Your task to perform on an android device: open app "Indeed Job Search" (install if not already installed) and go to login screen Image 0: 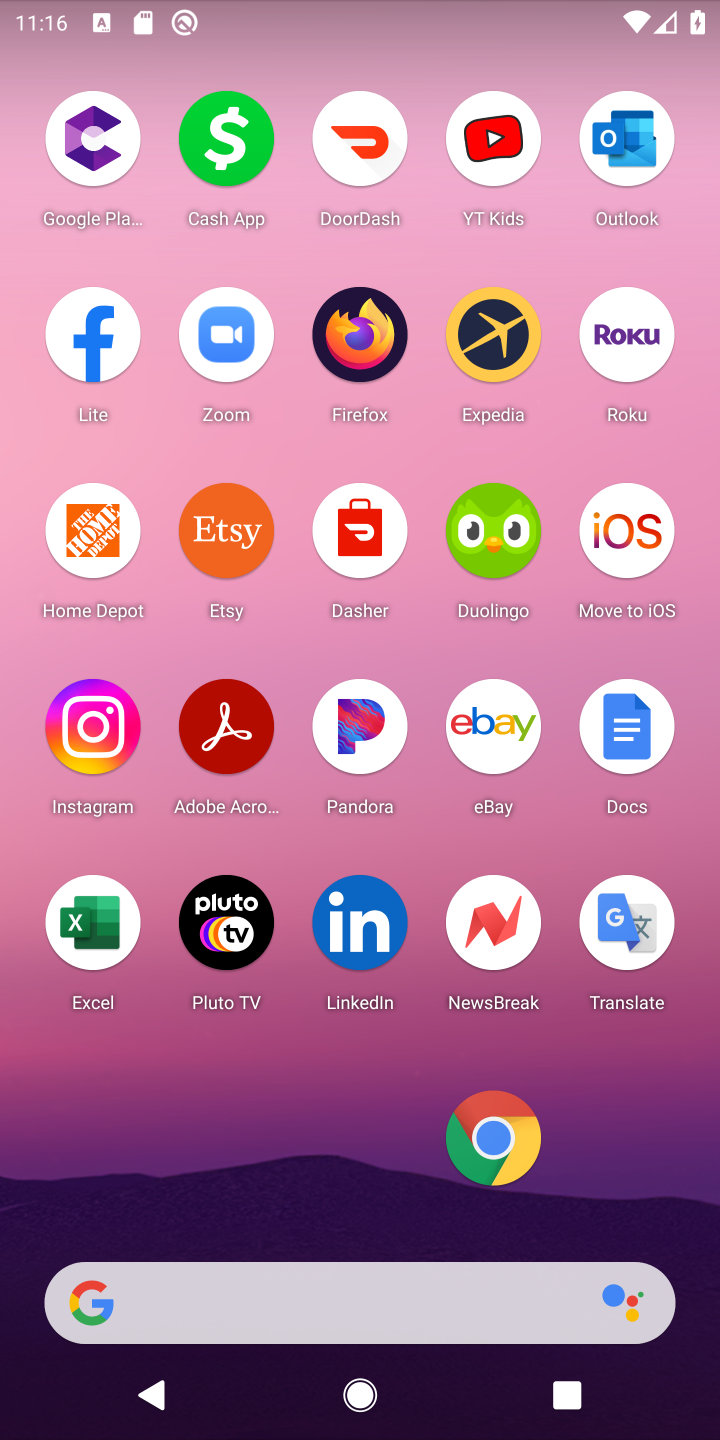
Step 0: press home button
Your task to perform on an android device: open app "Indeed Job Search" (install if not already installed) and go to login screen Image 1: 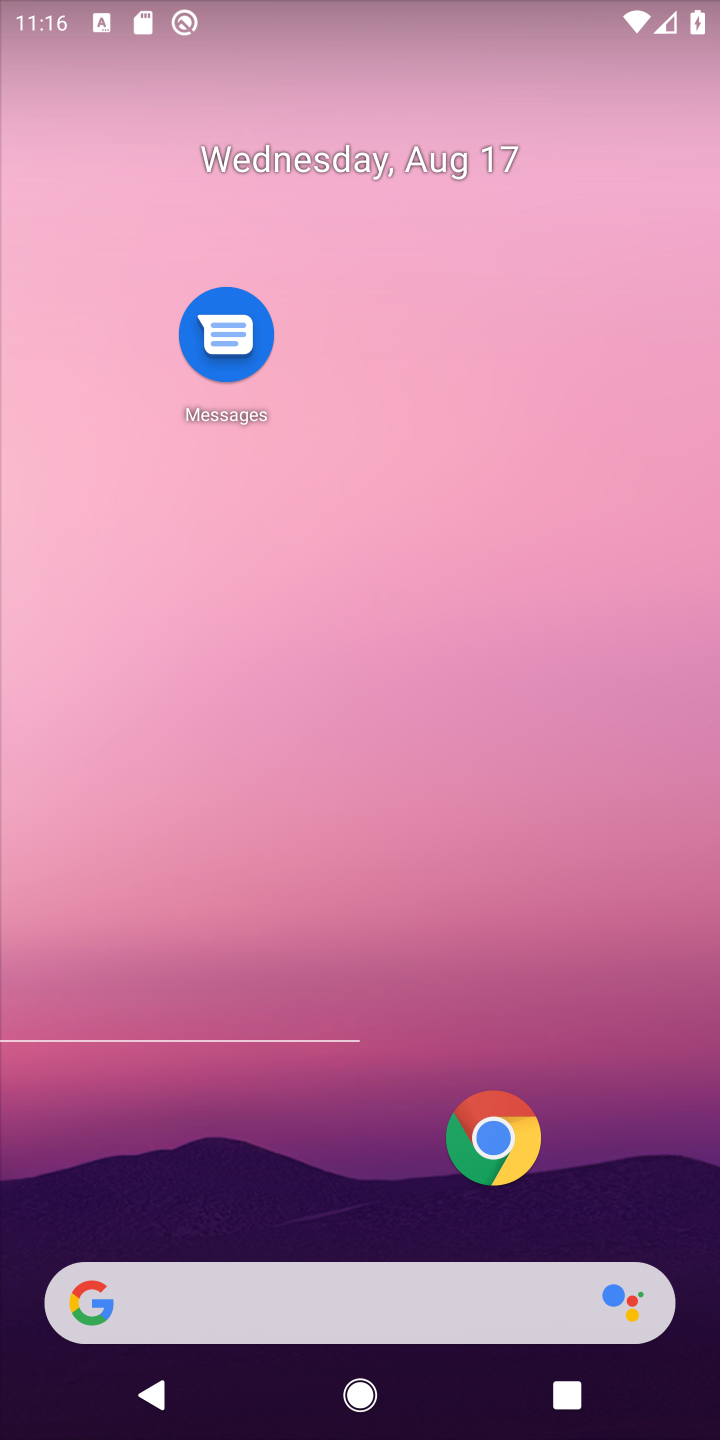
Step 1: click (499, 141)
Your task to perform on an android device: open app "Indeed Job Search" (install if not already installed) and go to login screen Image 2: 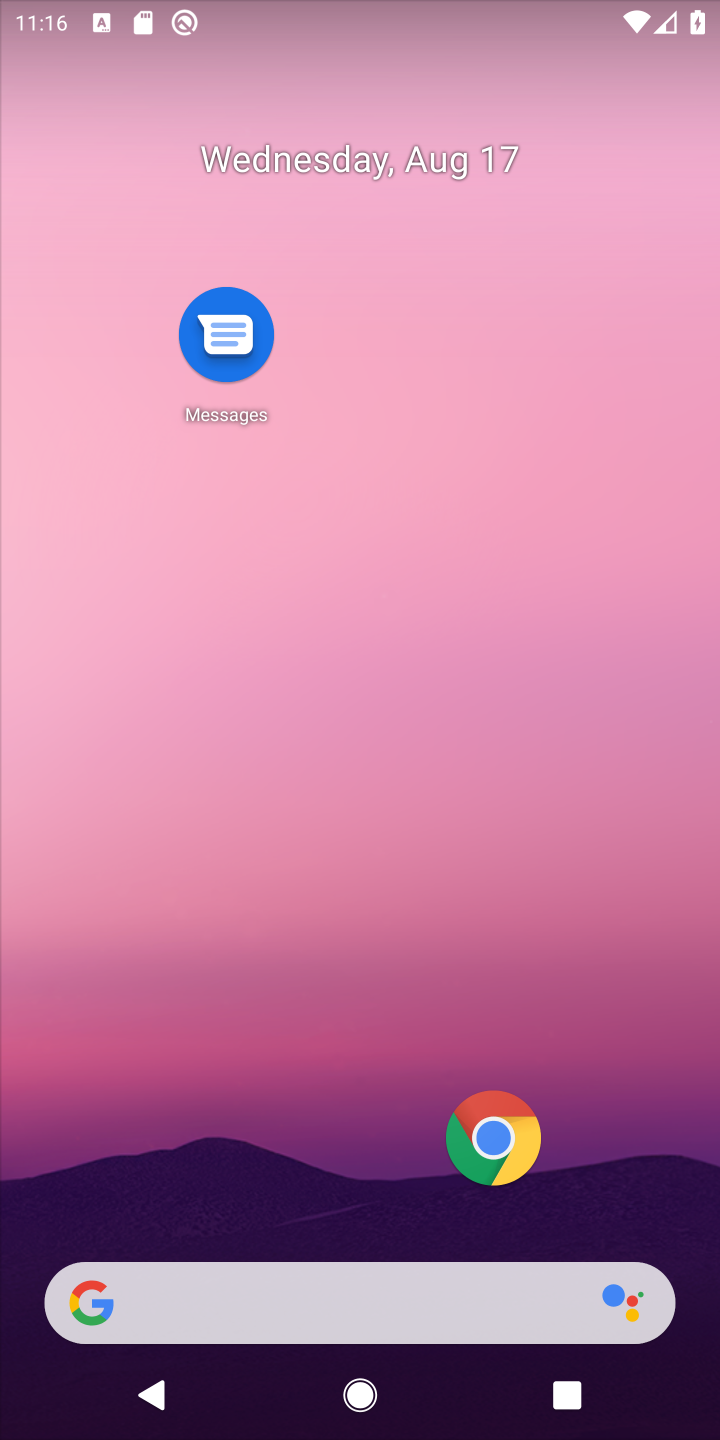
Step 2: drag from (384, 845) to (422, 571)
Your task to perform on an android device: open app "Indeed Job Search" (install if not already installed) and go to login screen Image 3: 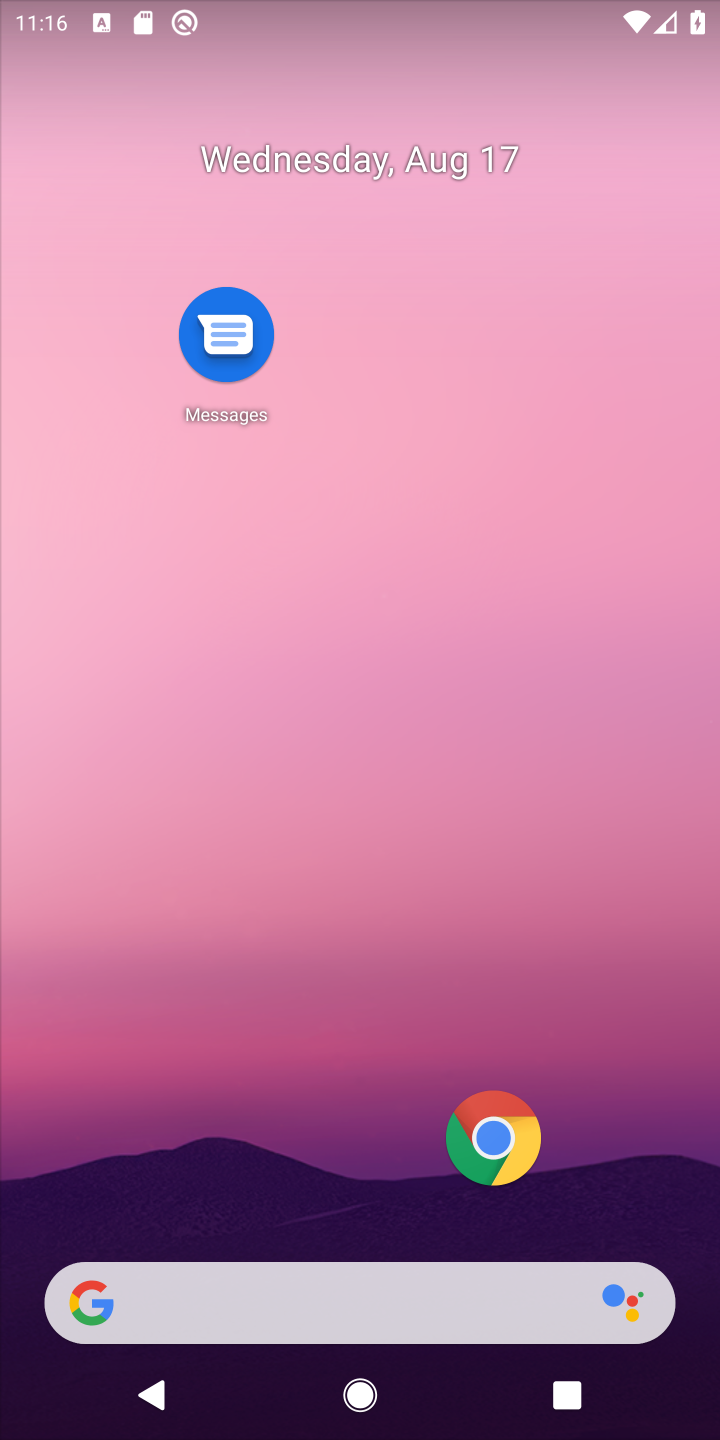
Step 3: drag from (254, 1088) to (308, 503)
Your task to perform on an android device: open app "Indeed Job Search" (install if not already installed) and go to login screen Image 4: 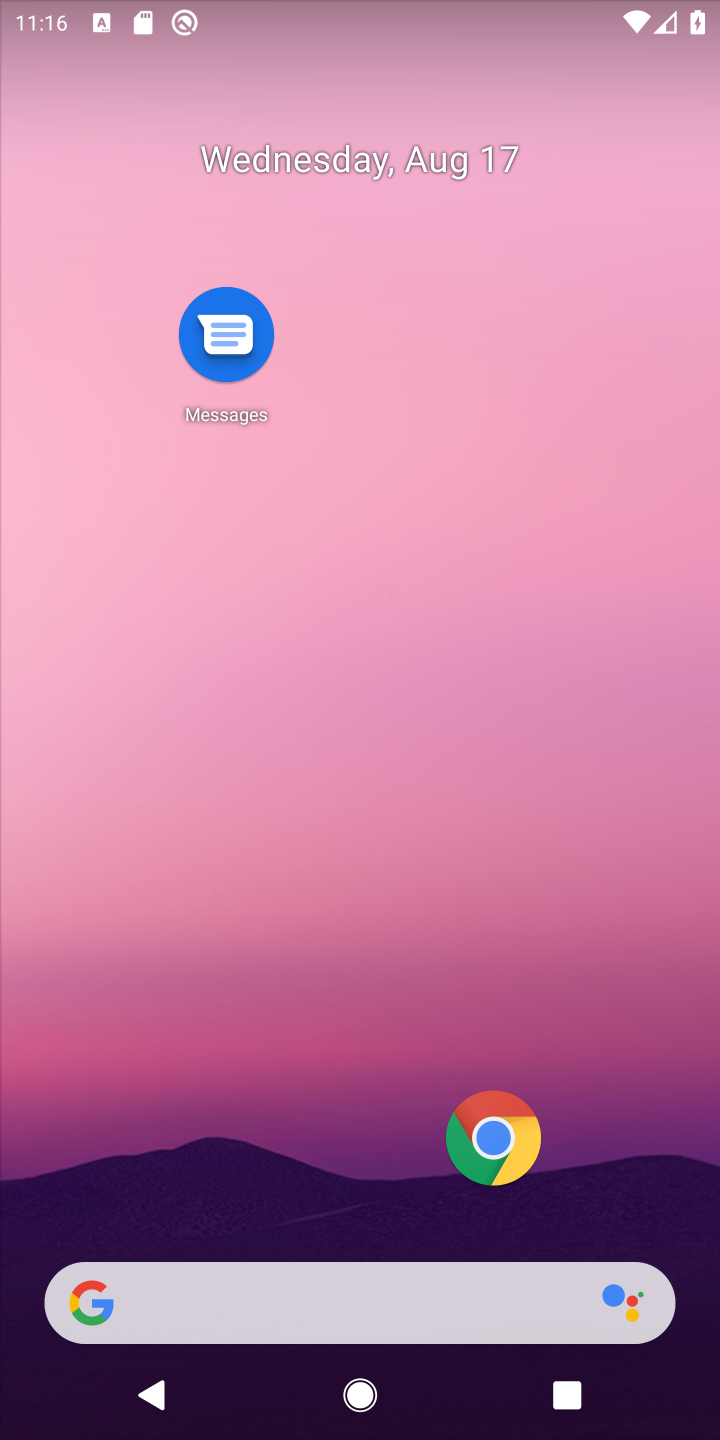
Step 4: drag from (274, 1136) to (283, 276)
Your task to perform on an android device: open app "Indeed Job Search" (install if not already installed) and go to login screen Image 5: 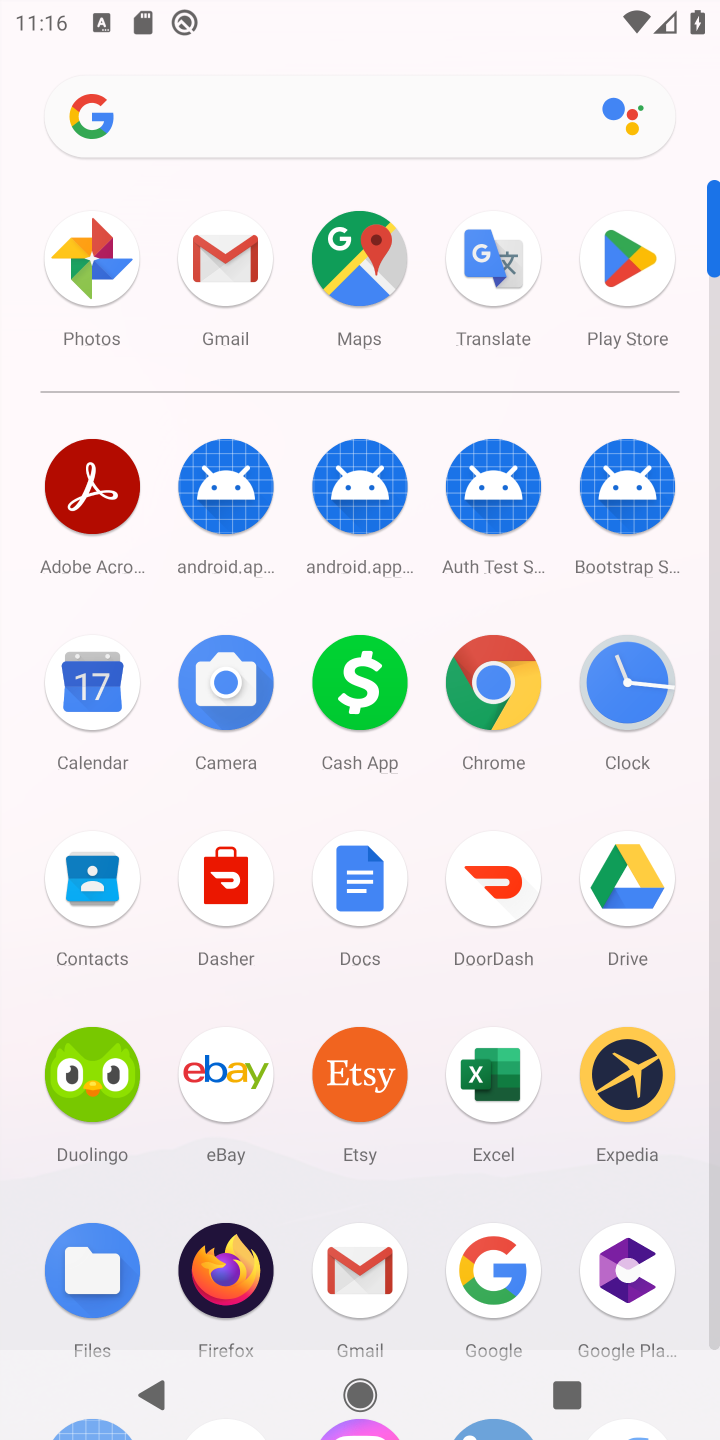
Step 5: click (611, 252)
Your task to perform on an android device: open app "Indeed Job Search" (install if not already installed) and go to login screen Image 6: 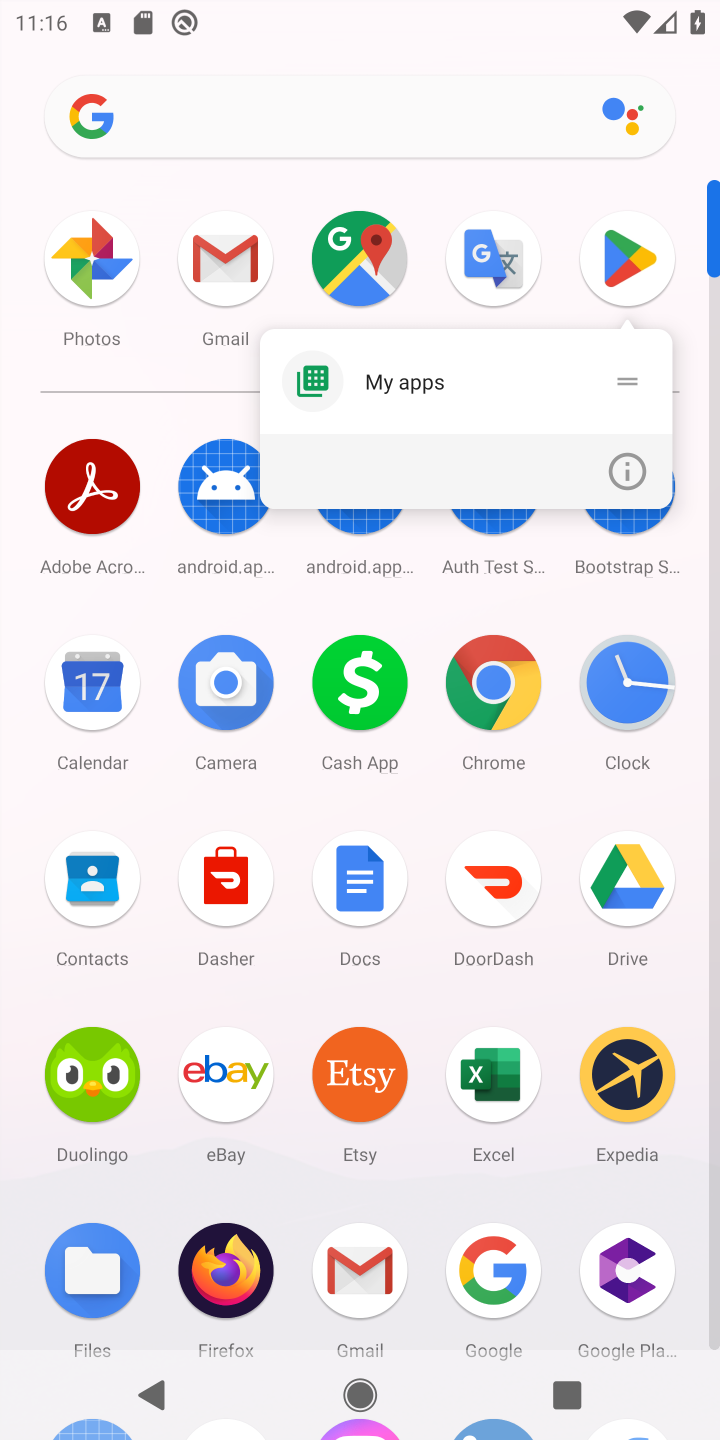
Step 6: click (611, 252)
Your task to perform on an android device: open app "Indeed Job Search" (install if not already installed) and go to login screen Image 7: 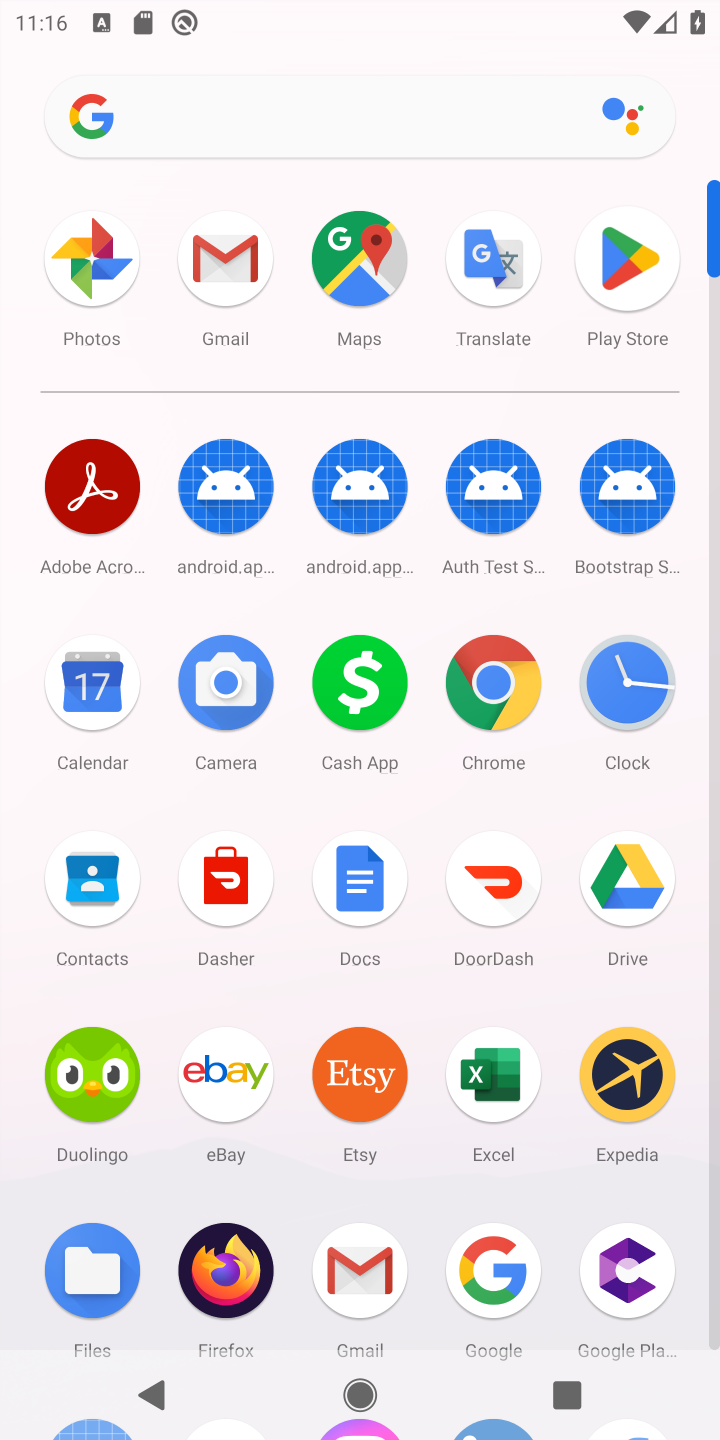
Step 7: click (630, 276)
Your task to perform on an android device: open app "Indeed Job Search" (install if not already installed) and go to login screen Image 8: 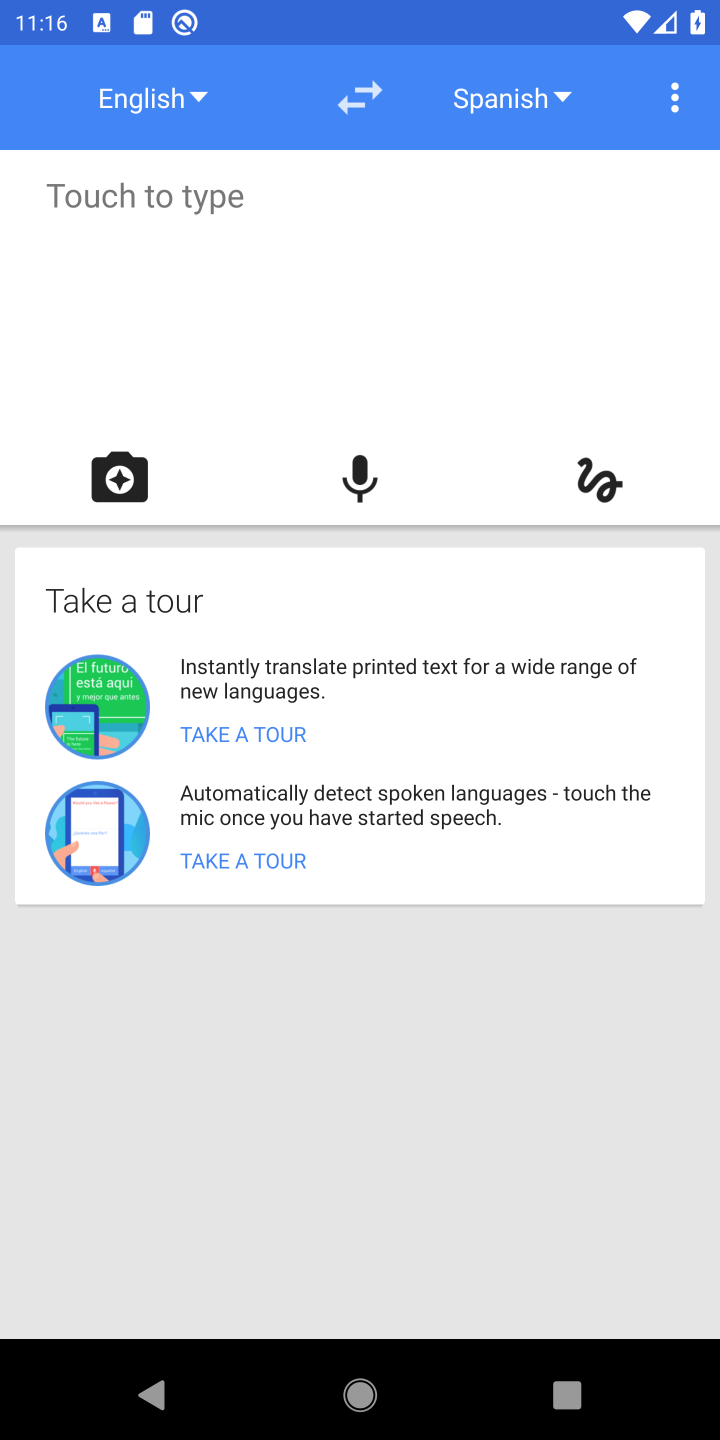
Step 8: press back button
Your task to perform on an android device: open app "Indeed Job Search" (install if not already installed) and go to login screen Image 9: 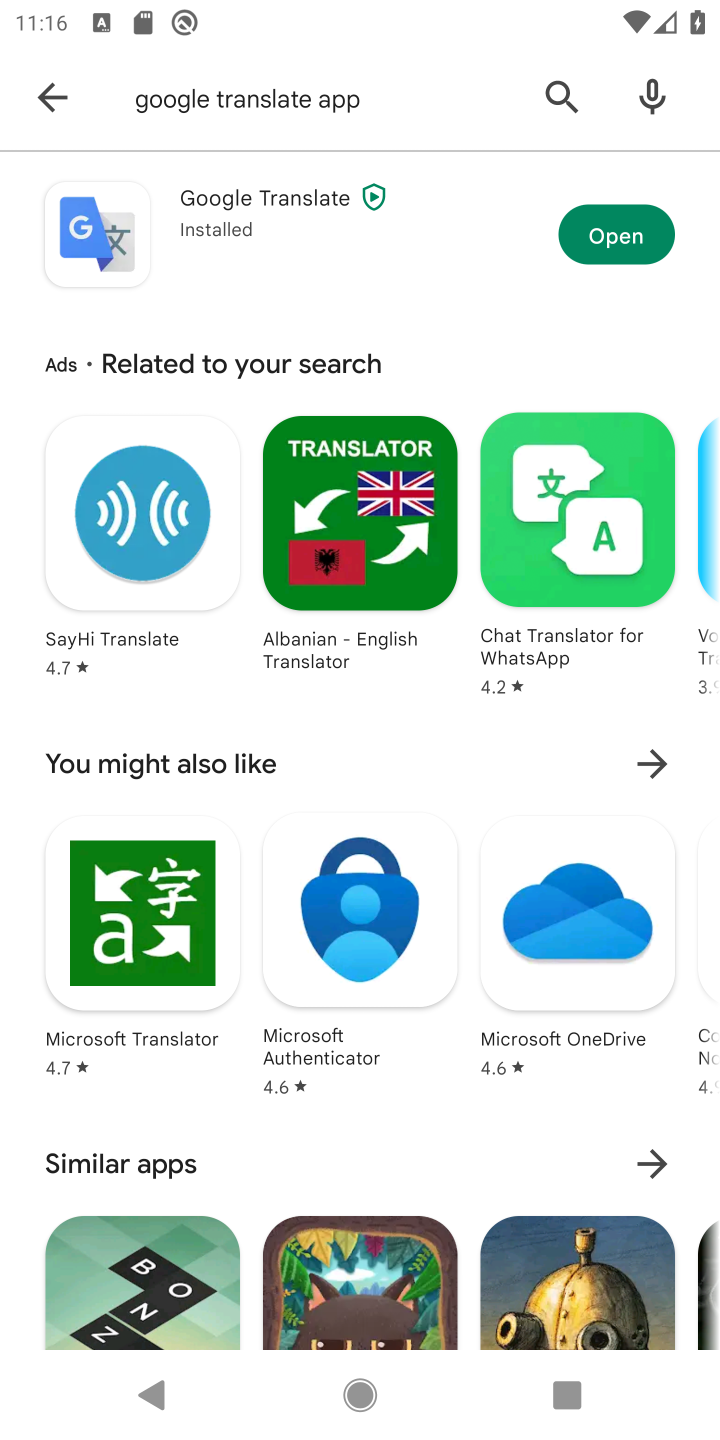
Step 9: click (50, 71)
Your task to perform on an android device: open app "Indeed Job Search" (install if not already installed) and go to login screen Image 10: 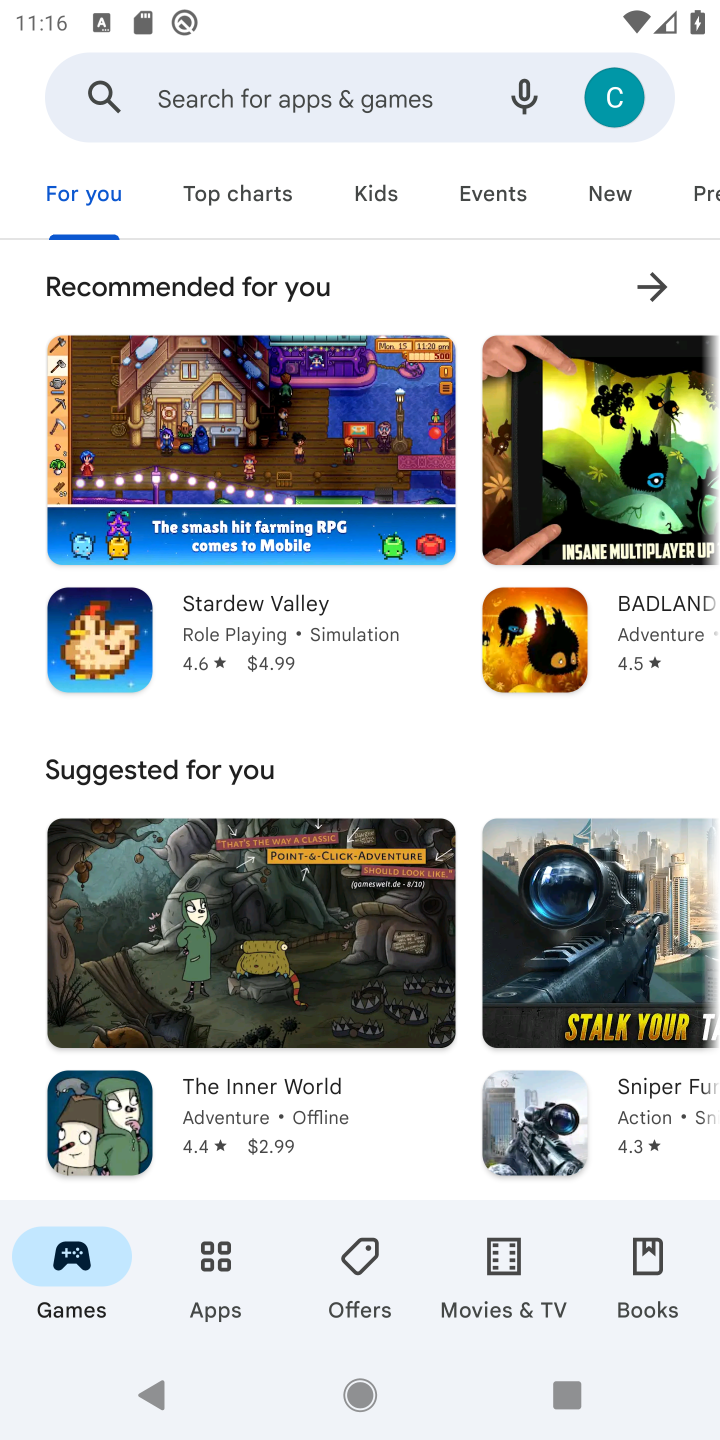
Step 10: click (291, 73)
Your task to perform on an android device: open app "Indeed Job Search" (install if not already installed) and go to login screen Image 11: 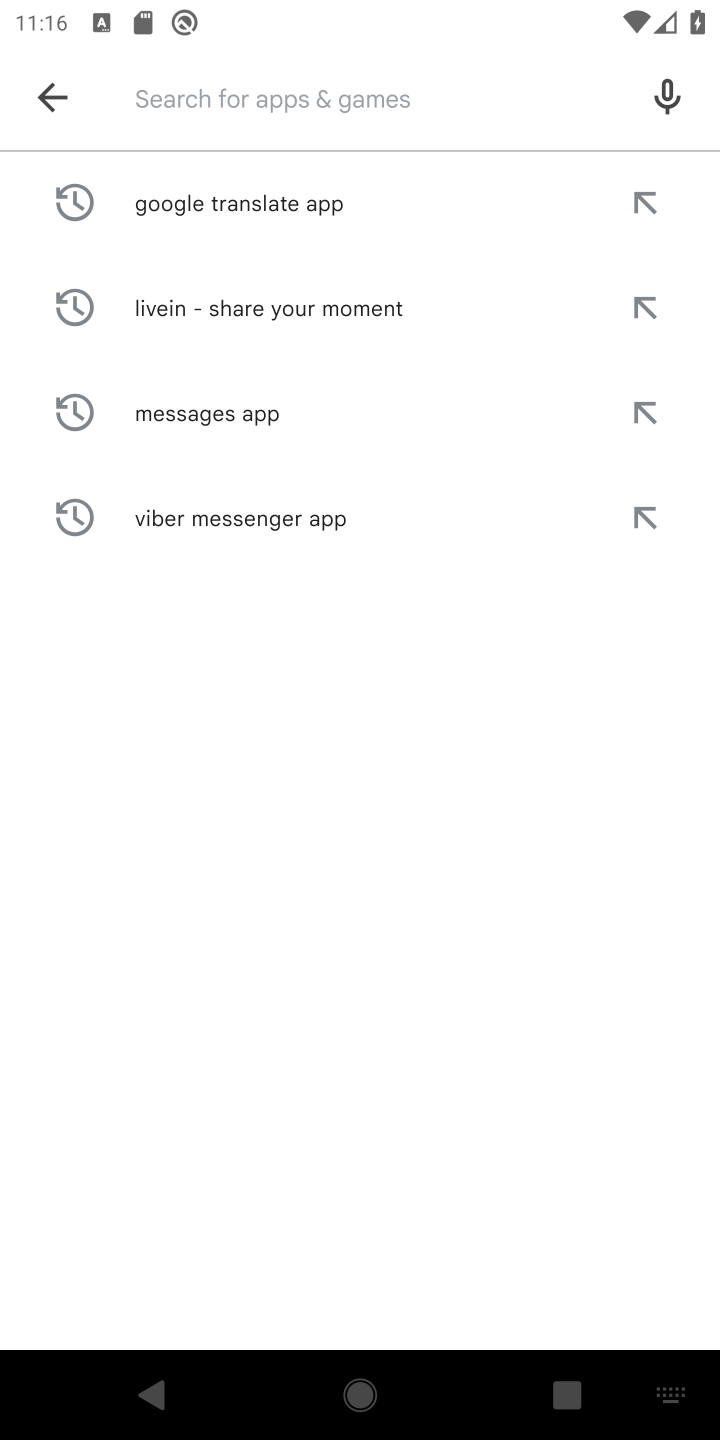
Step 11: type "Indeed Job Search "
Your task to perform on an android device: open app "Indeed Job Search" (install if not already installed) and go to login screen Image 12: 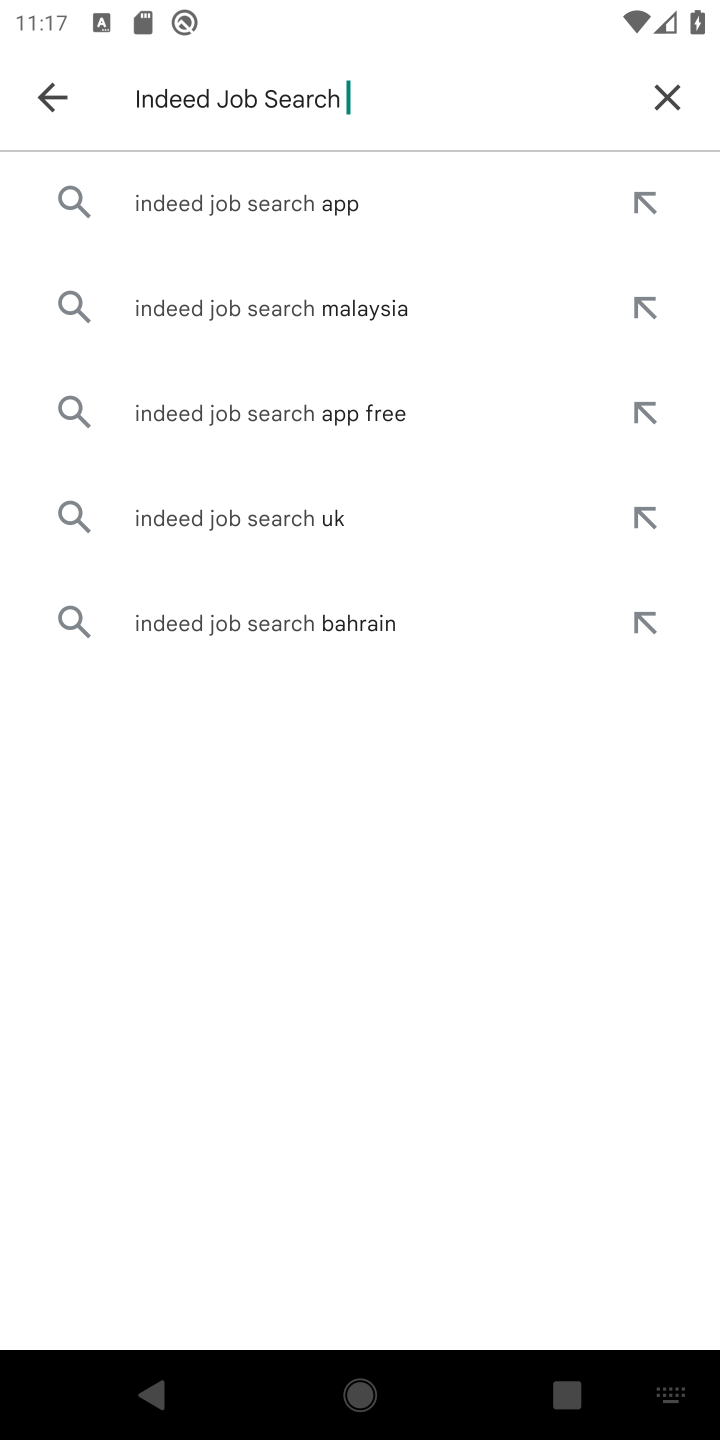
Step 12: click (209, 183)
Your task to perform on an android device: open app "Indeed Job Search" (install if not already installed) and go to login screen Image 13: 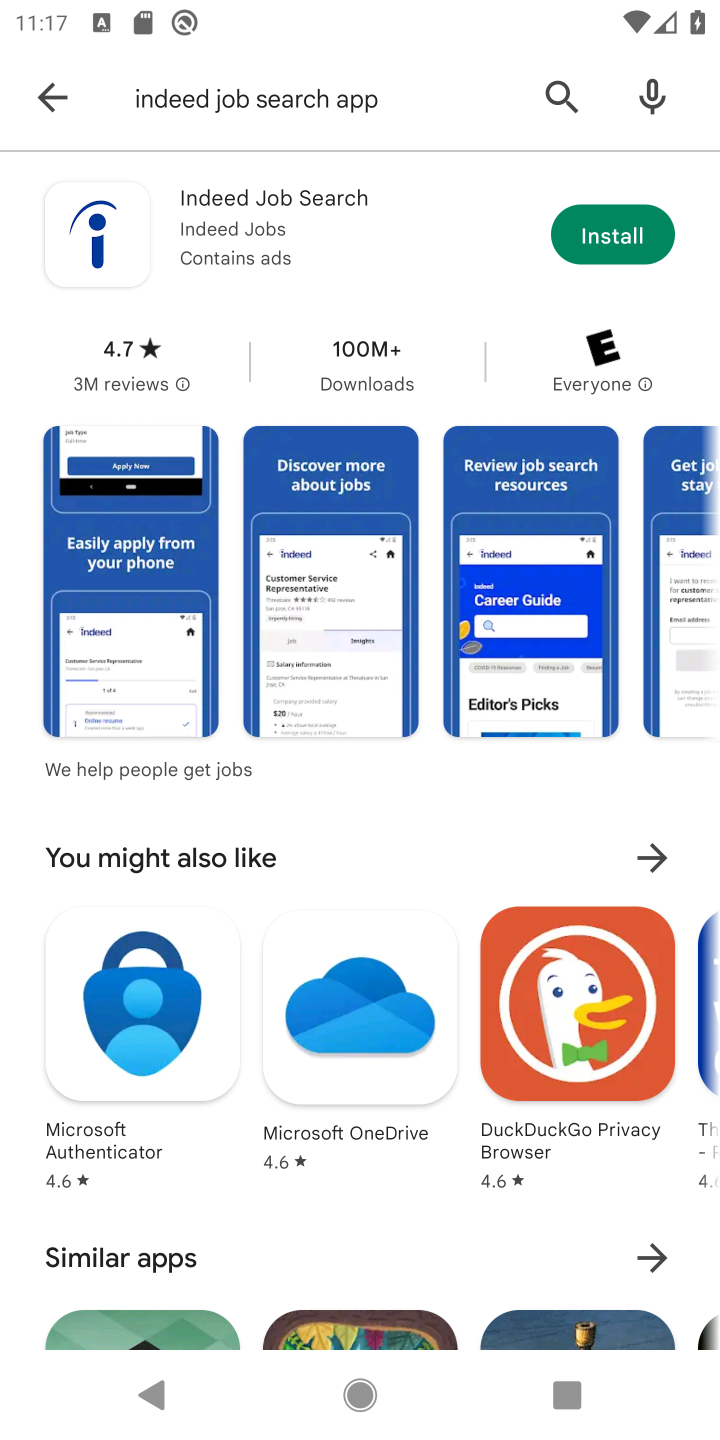
Step 13: click (580, 232)
Your task to perform on an android device: open app "Indeed Job Search" (install if not already installed) and go to login screen Image 14: 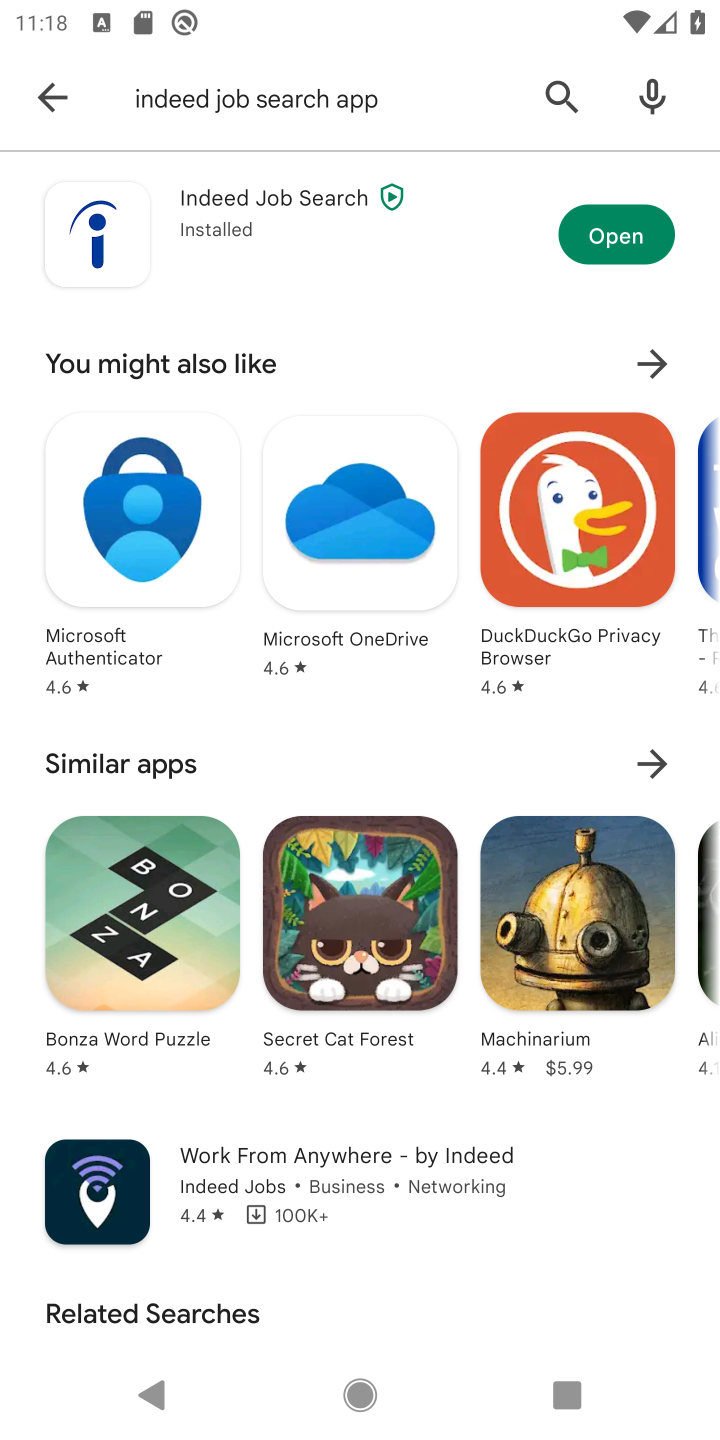
Step 14: click (646, 242)
Your task to perform on an android device: open app "Indeed Job Search" (install if not already installed) and go to login screen Image 15: 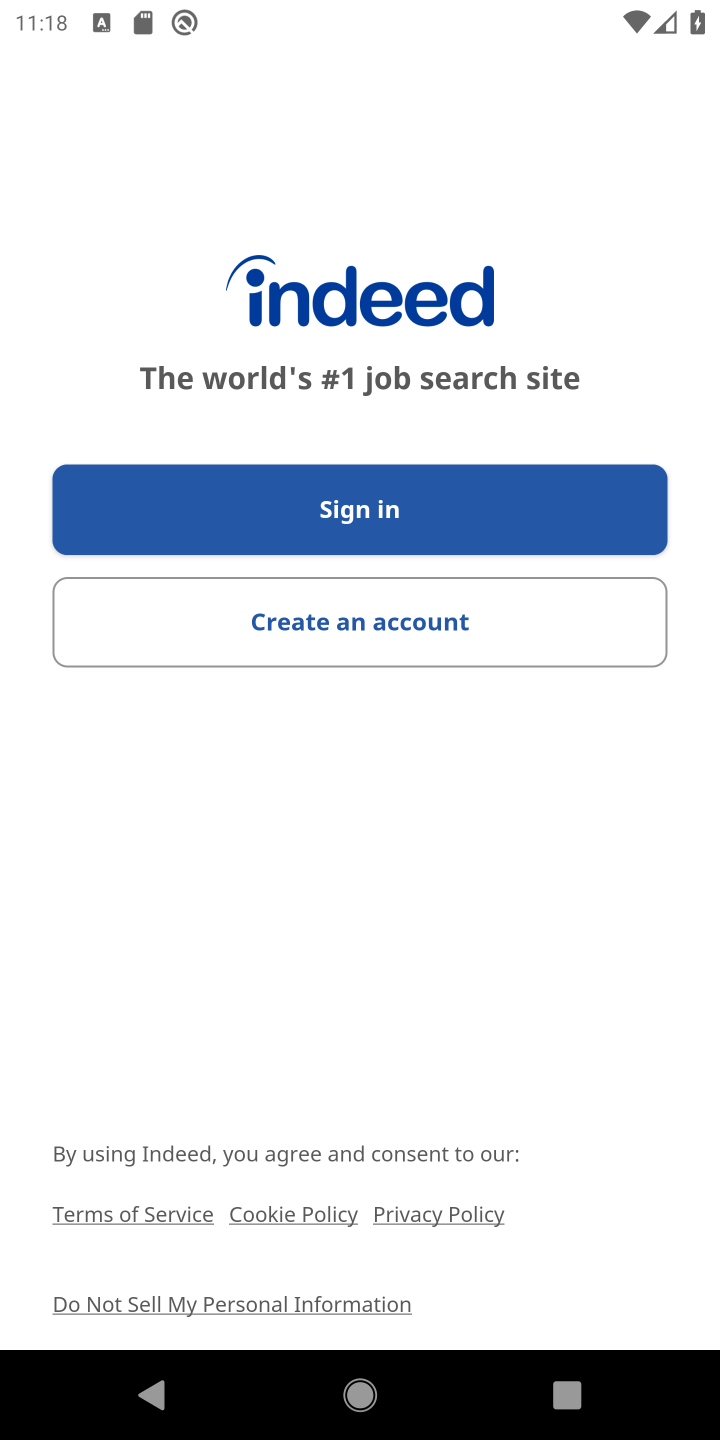
Step 15: task complete